Your task to perform on an android device: toggle notification dots Image 0: 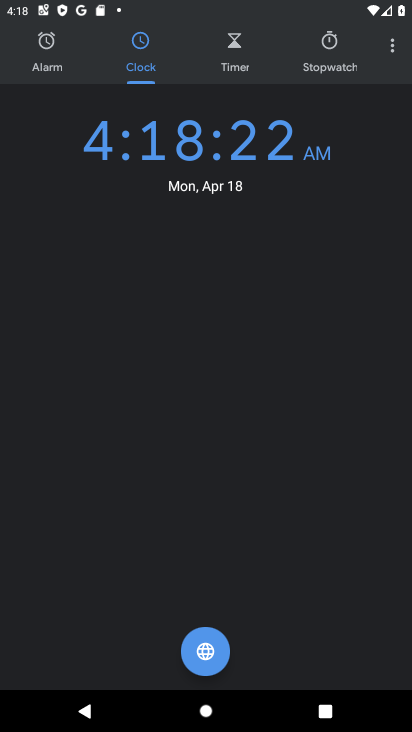
Step 0: press home button
Your task to perform on an android device: toggle notification dots Image 1: 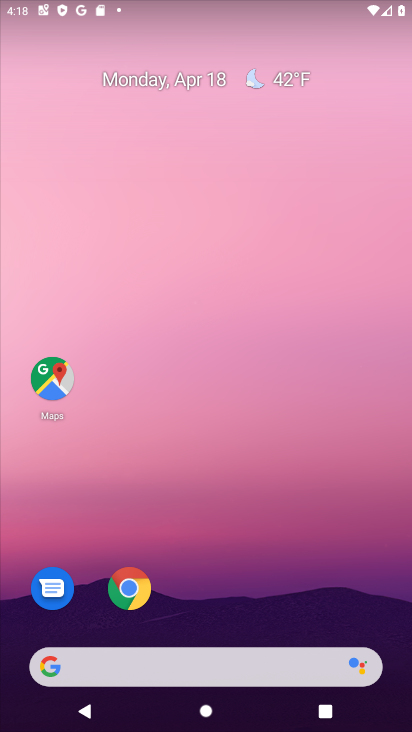
Step 1: drag from (267, 405) to (261, 133)
Your task to perform on an android device: toggle notification dots Image 2: 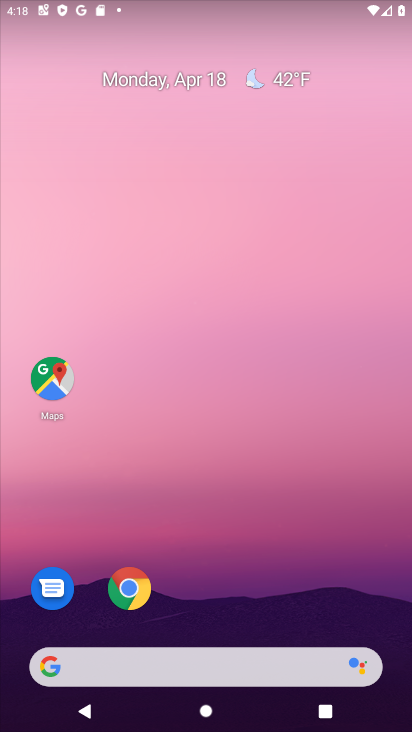
Step 2: drag from (228, 493) to (228, 121)
Your task to perform on an android device: toggle notification dots Image 3: 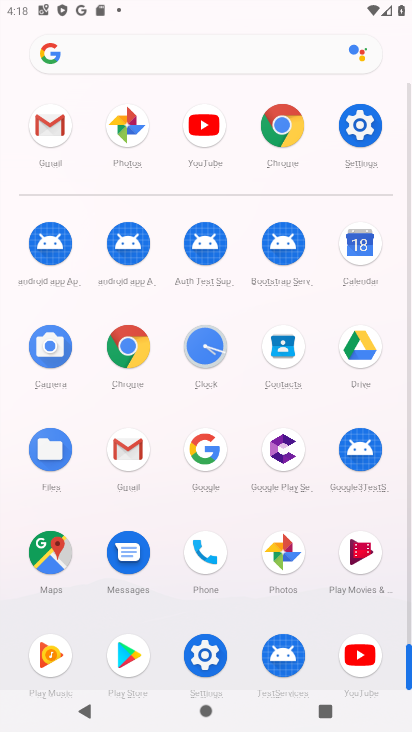
Step 3: click (373, 148)
Your task to perform on an android device: toggle notification dots Image 4: 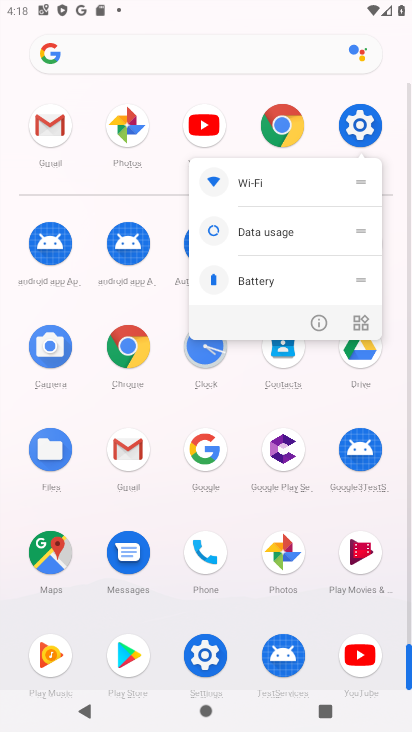
Step 4: click (365, 137)
Your task to perform on an android device: toggle notification dots Image 5: 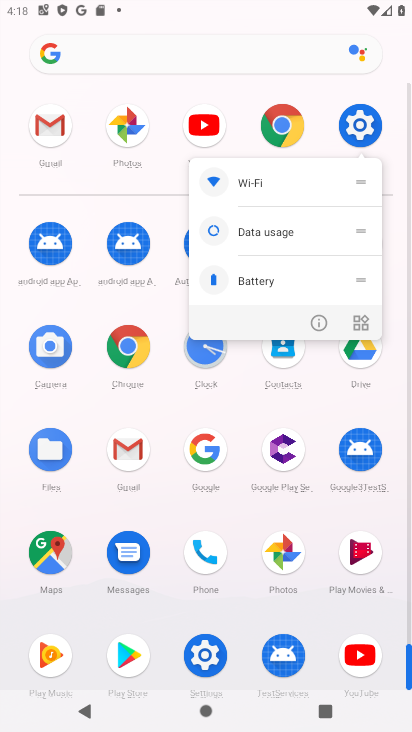
Step 5: click (365, 137)
Your task to perform on an android device: toggle notification dots Image 6: 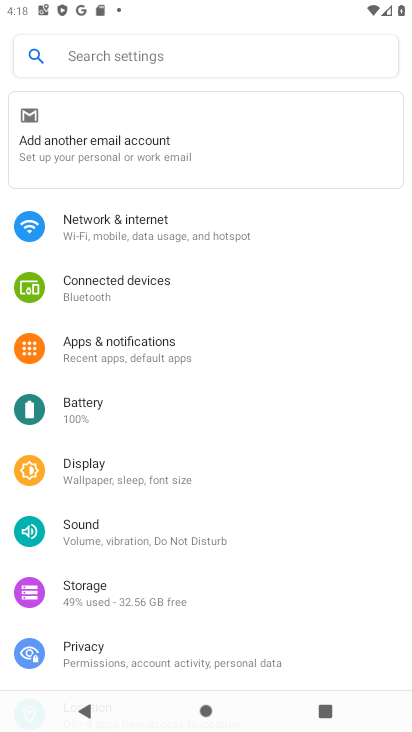
Step 6: click (136, 340)
Your task to perform on an android device: toggle notification dots Image 7: 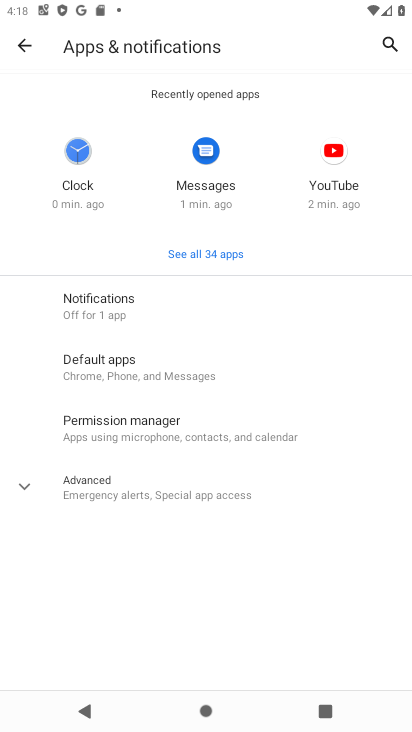
Step 7: click (132, 315)
Your task to perform on an android device: toggle notification dots Image 8: 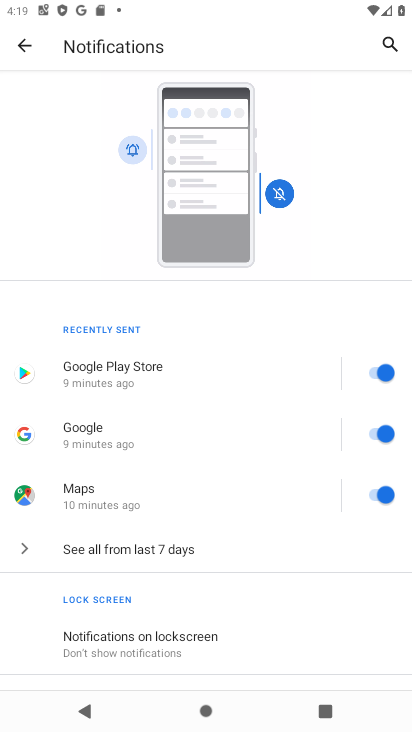
Step 8: drag from (245, 624) to (241, 279)
Your task to perform on an android device: toggle notification dots Image 9: 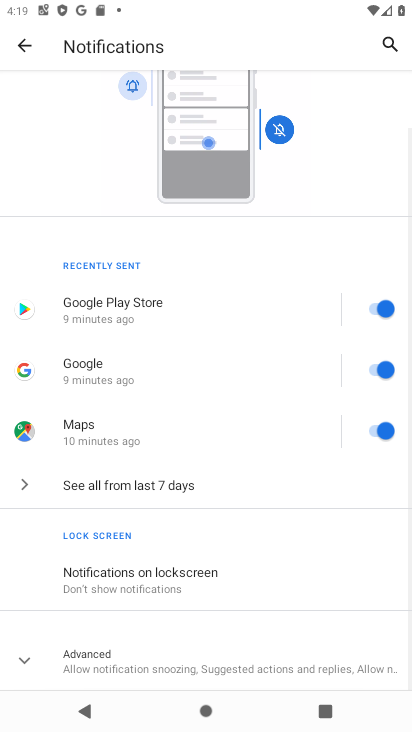
Step 9: click (27, 661)
Your task to perform on an android device: toggle notification dots Image 10: 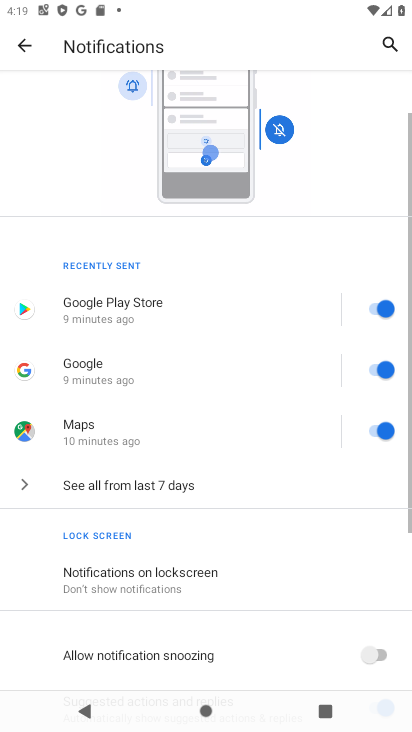
Step 10: drag from (217, 591) to (246, 303)
Your task to perform on an android device: toggle notification dots Image 11: 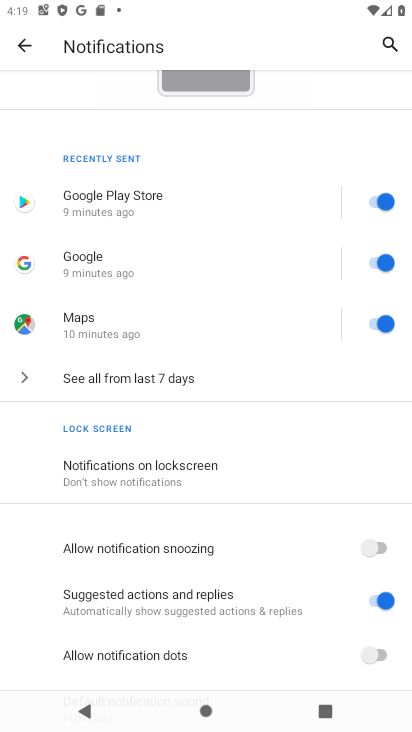
Step 11: click (376, 657)
Your task to perform on an android device: toggle notification dots Image 12: 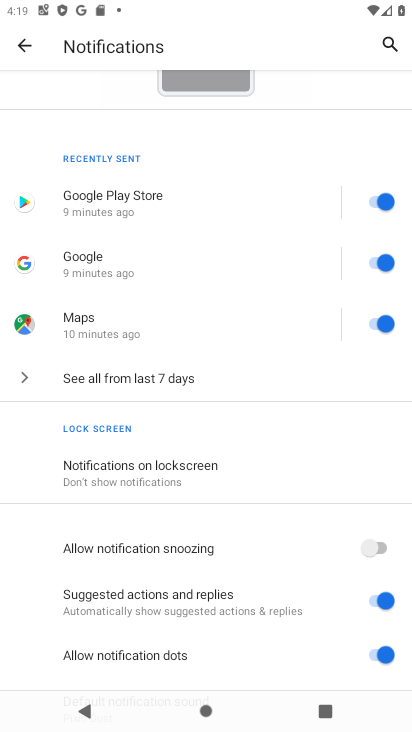
Step 12: task complete